Your task to perform on an android device: turn off sleep mode Image 0: 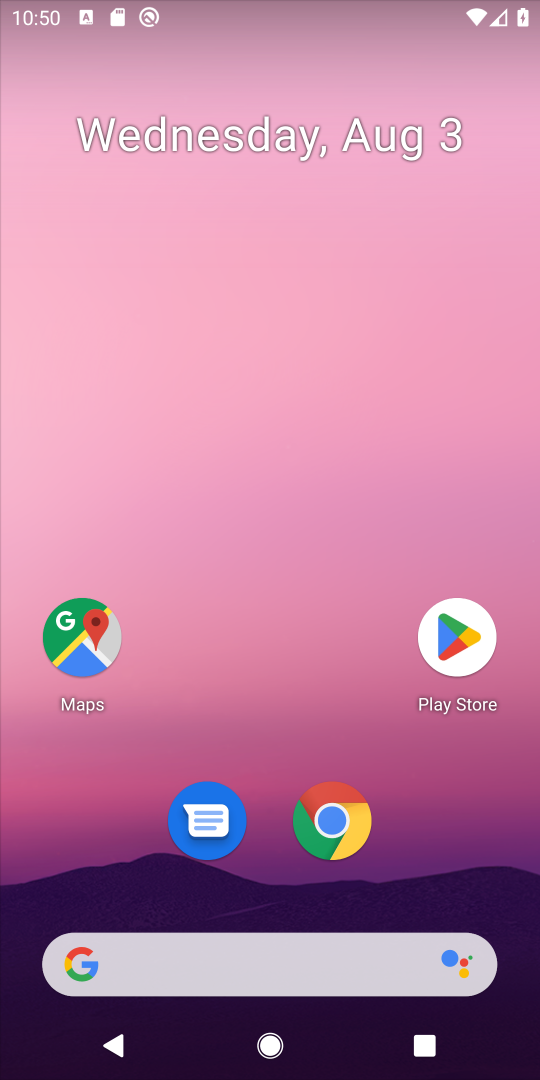
Step 0: drag from (318, 952) to (294, 2)
Your task to perform on an android device: turn off sleep mode Image 1: 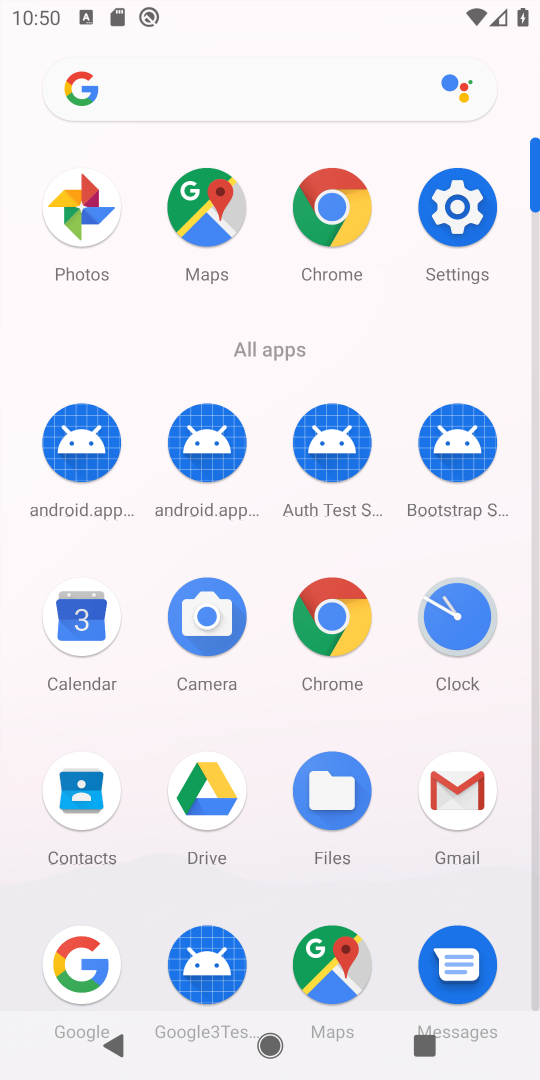
Step 1: click (461, 206)
Your task to perform on an android device: turn off sleep mode Image 2: 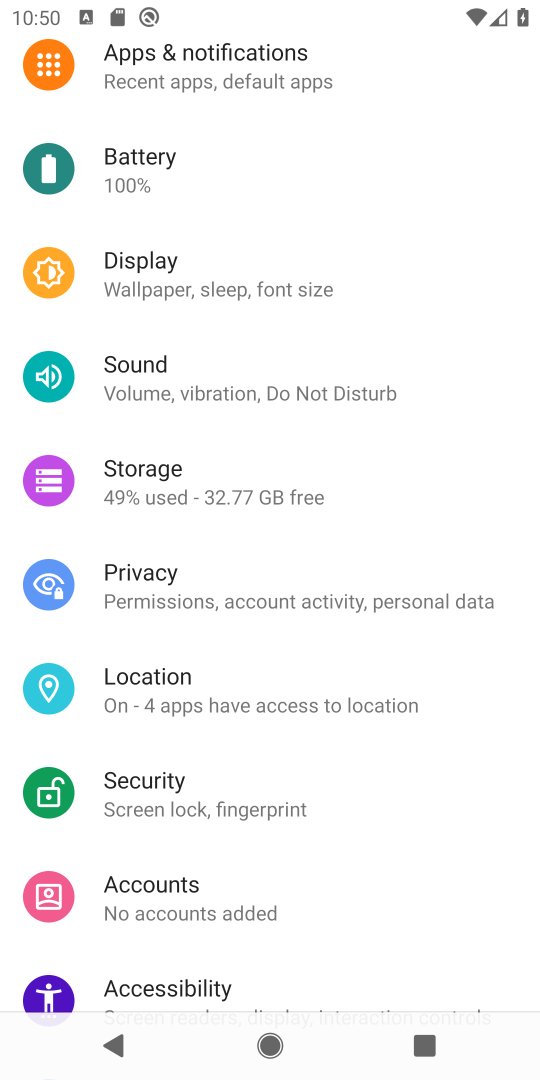
Step 2: click (243, 285)
Your task to perform on an android device: turn off sleep mode Image 3: 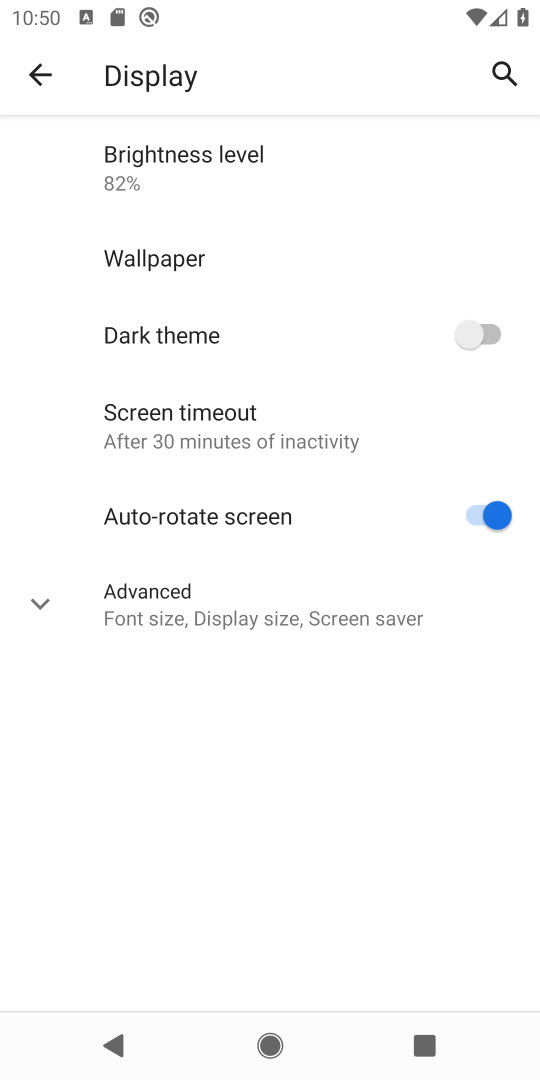
Step 3: task complete